Your task to perform on an android device: Open Reddit.com Image 0: 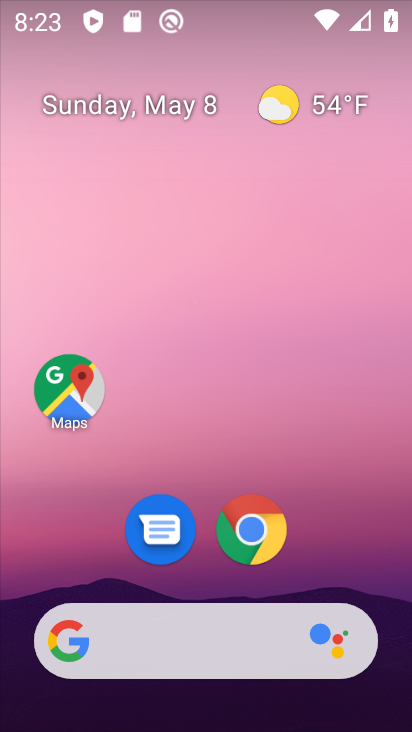
Step 0: drag from (384, 563) to (361, 171)
Your task to perform on an android device: Open Reddit.com Image 1: 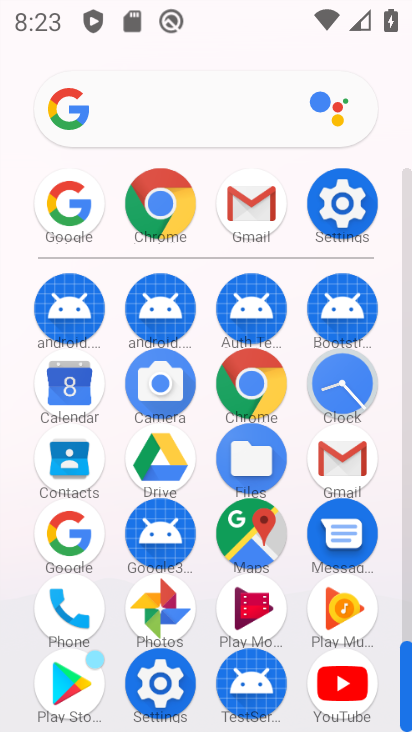
Step 1: drag from (188, 637) to (191, 286)
Your task to perform on an android device: Open Reddit.com Image 2: 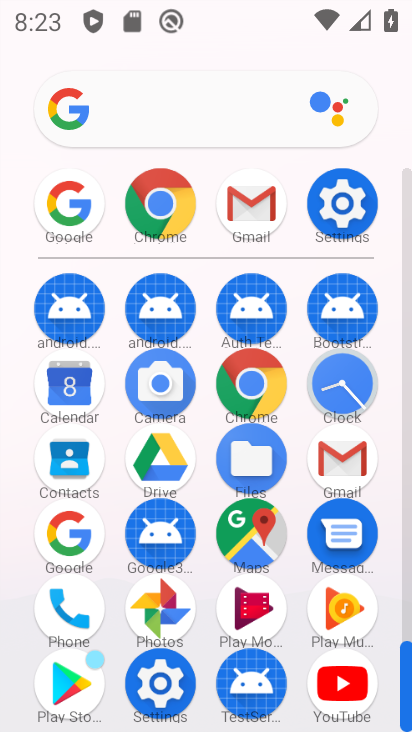
Step 2: click (169, 198)
Your task to perform on an android device: Open Reddit.com Image 3: 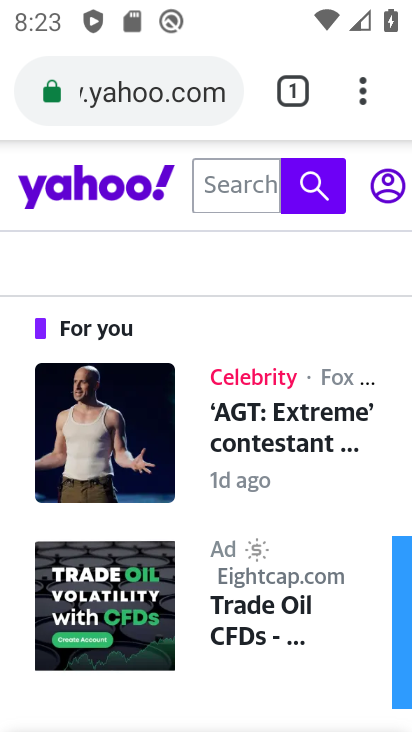
Step 3: click (154, 101)
Your task to perform on an android device: Open Reddit.com Image 4: 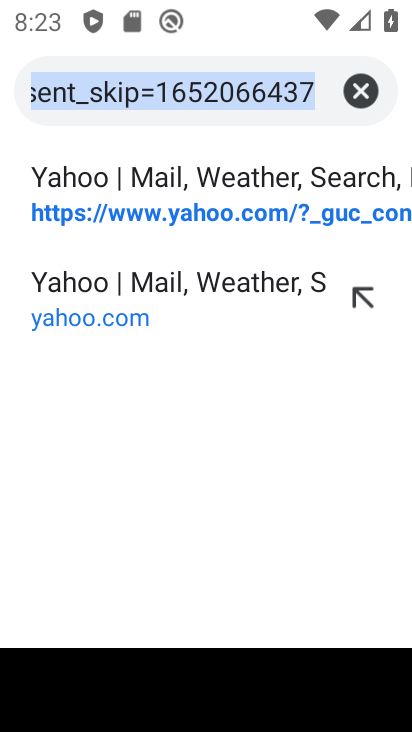
Step 4: click (350, 95)
Your task to perform on an android device: Open Reddit.com Image 5: 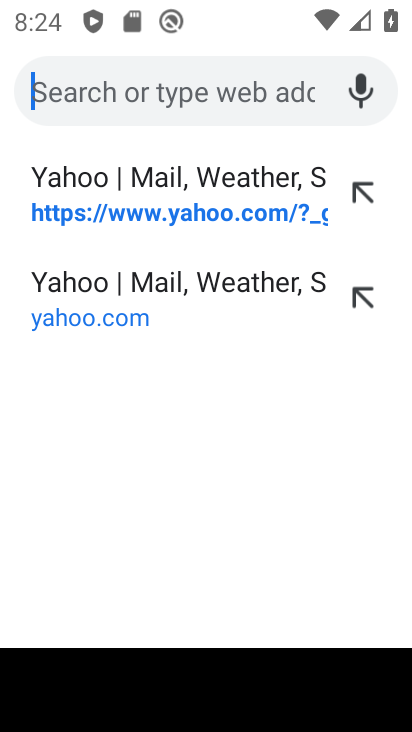
Step 5: type "reddit.com"
Your task to perform on an android device: Open Reddit.com Image 6: 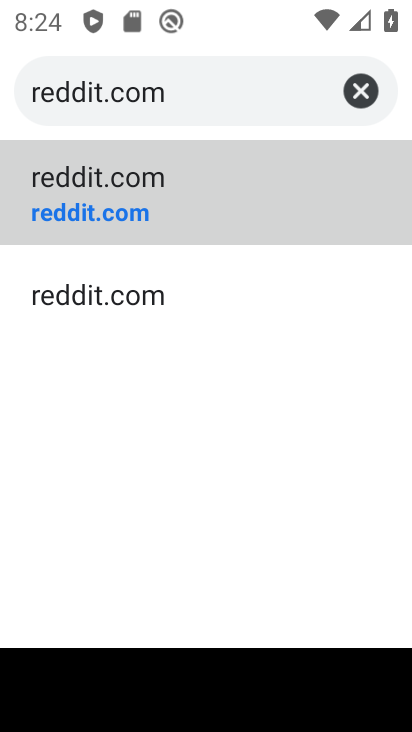
Step 6: click (103, 175)
Your task to perform on an android device: Open Reddit.com Image 7: 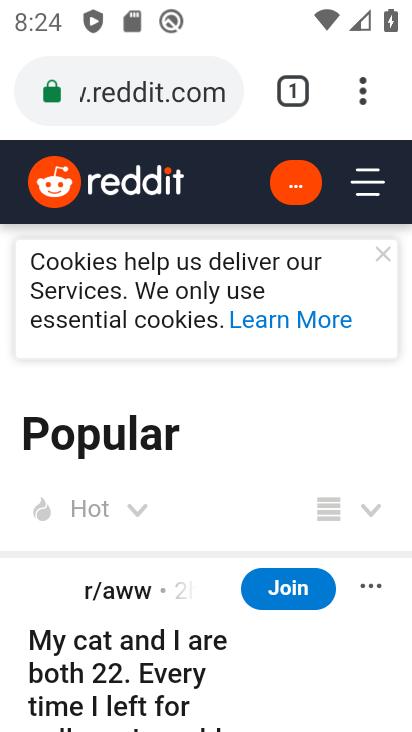
Step 7: task complete